Your task to perform on an android device: change the clock display to digital Image 0: 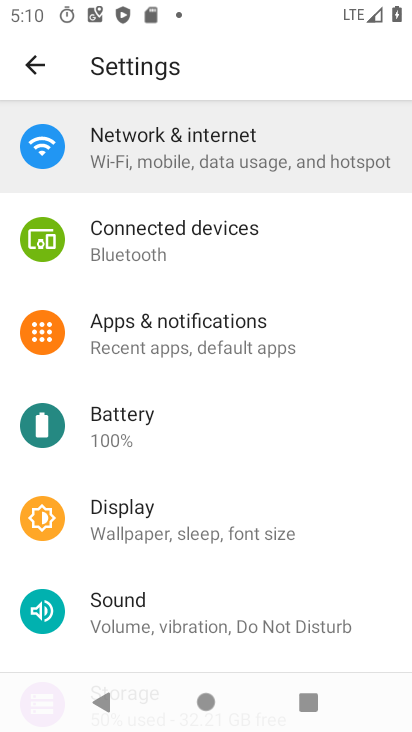
Step 0: press home button
Your task to perform on an android device: change the clock display to digital Image 1: 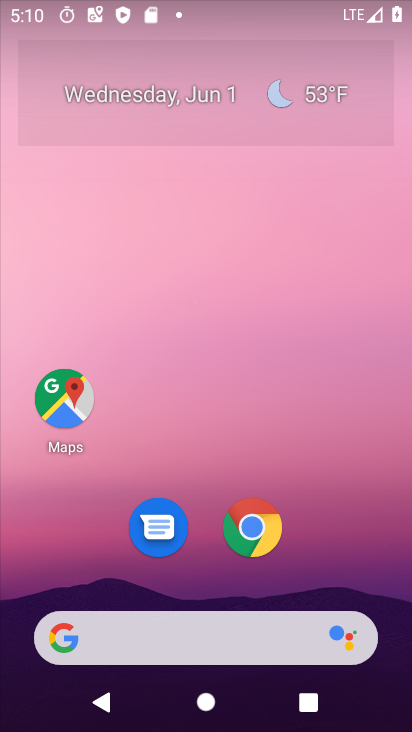
Step 1: drag from (314, 568) to (302, 172)
Your task to perform on an android device: change the clock display to digital Image 2: 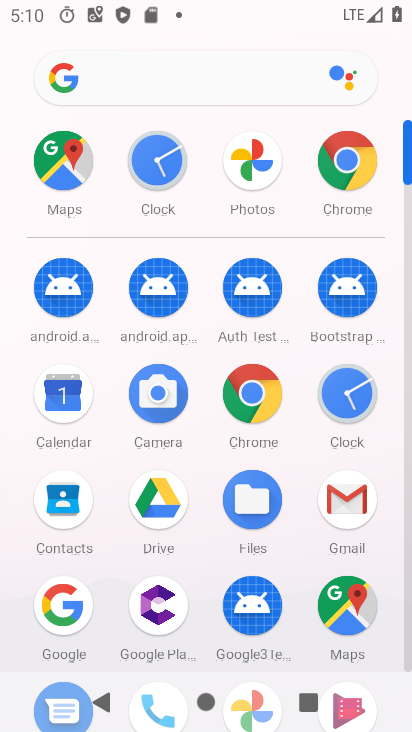
Step 2: click (329, 382)
Your task to perform on an android device: change the clock display to digital Image 3: 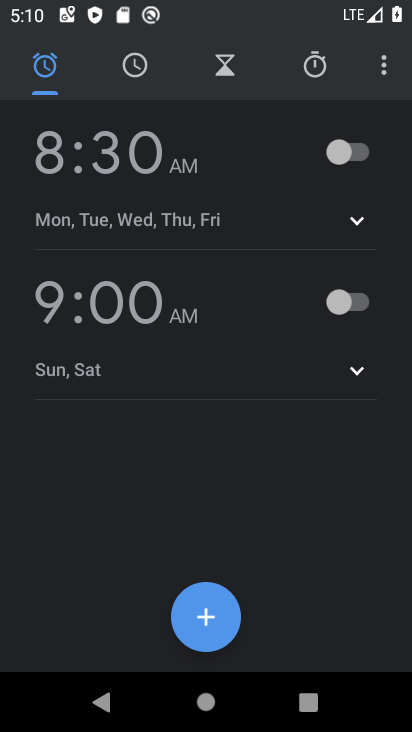
Step 3: click (379, 75)
Your task to perform on an android device: change the clock display to digital Image 4: 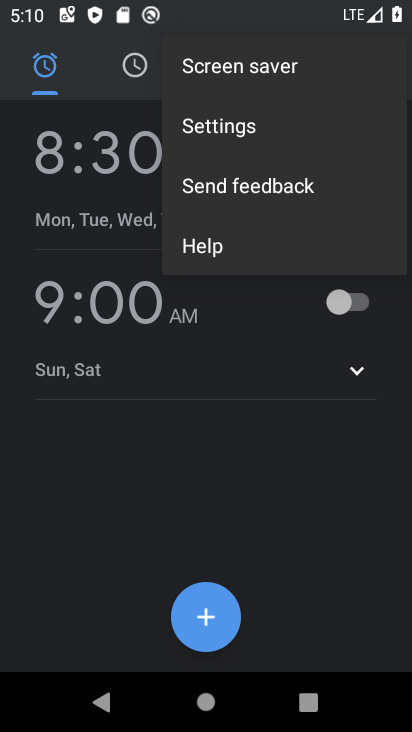
Step 4: click (211, 122)
Your task to perform on an android device: change the clock display to digital Image 5: 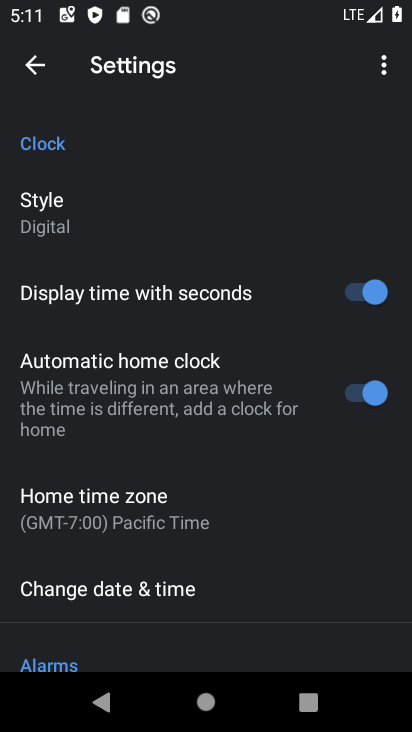
Step 5: click (94, 222)
Your task to perform on an android device: change the clock display to digital Image 6: 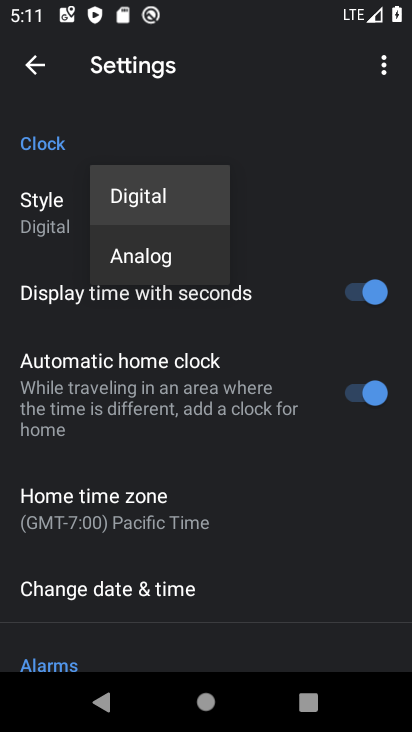
Step 6: click (178, 182)
Your task to perform on an android device: change the clock display to digital Image 7: 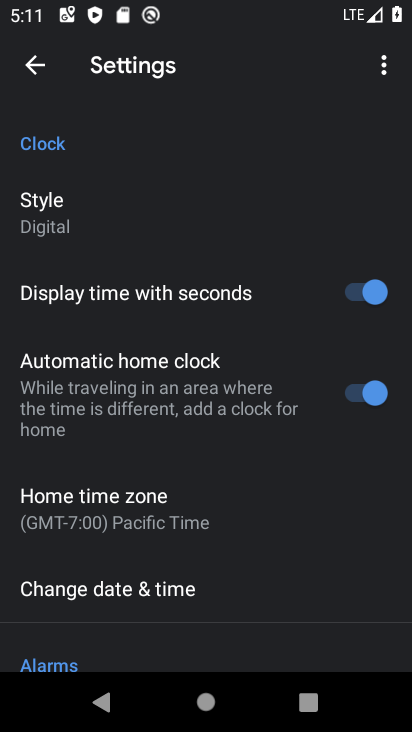
Step 7: task complete